Your task to perform on an android device: stop showing notifications on the lock screen Image 0: 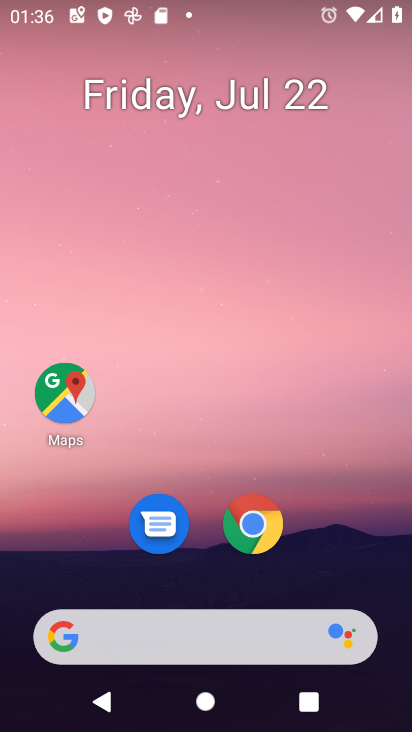
Step 0: drag from (220, 617) to (308, 0)
Your task to perform on an android device: stop showing notifications on the lock screen Image 1: 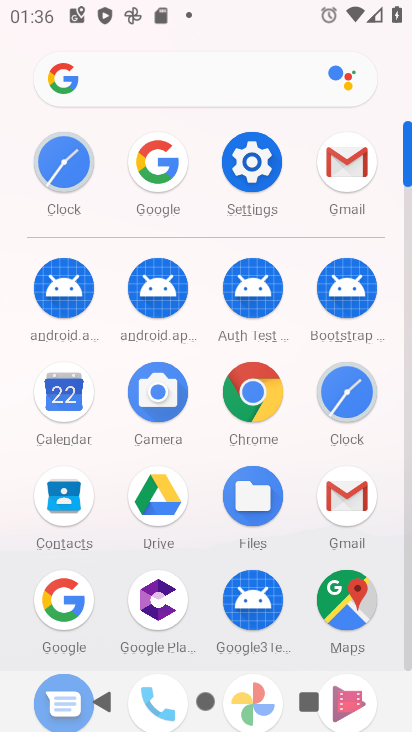
Step 1: click (245, 165)
Your task to perform on an android device: stop showing notifications on the lock screen Image 2: 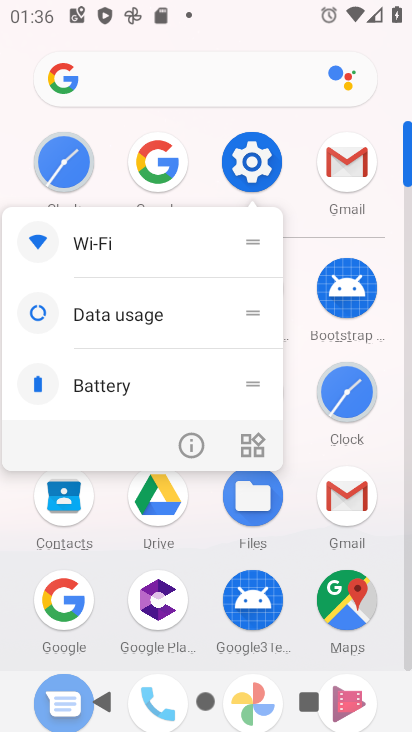
Step 2: click (249, 164)
Your task to perform on an android device: stop showing notifications on the lock screen Image 3: 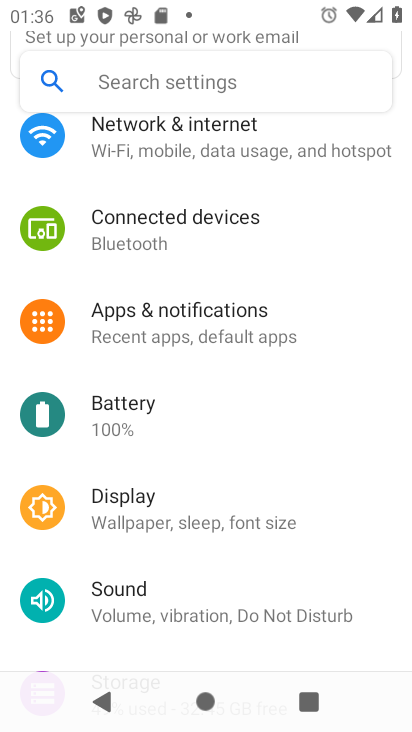
Step 3: click (237, 321)
Your task to perform on an android device: stop showing notifications on the lock screen Image 4: 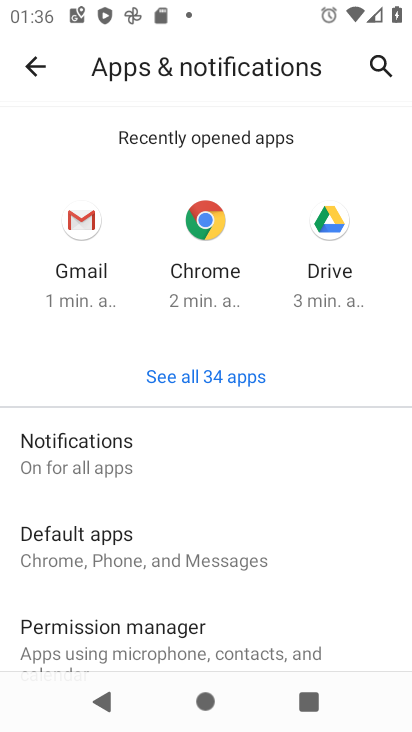
Step 4: click (108, 458)
Your task to perform on an android device: stop showing notifications on the lock screen Image 5: 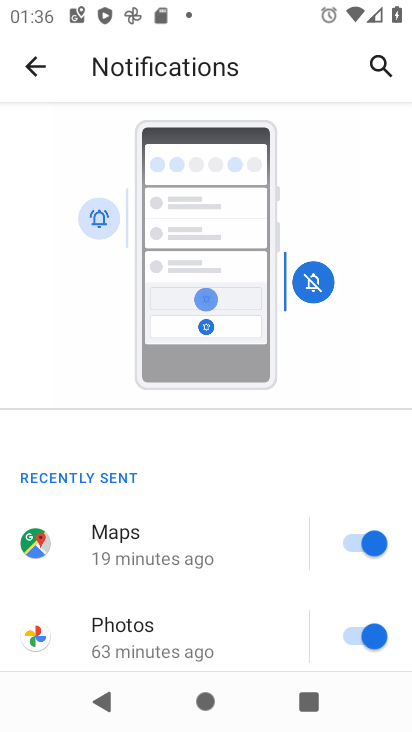
Step 5: drag from (200, 636) to (341, 224)
Your task to perform on an android device: stop showing notifications on the lock screen Image 6: 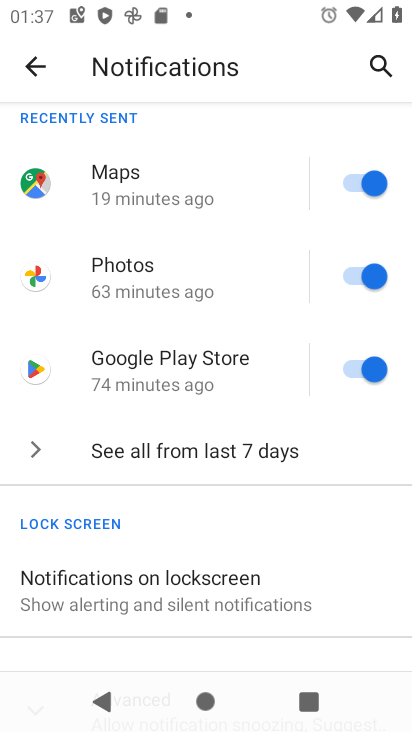
Step 6: click (165, 590)
Your task to perform on an android device: stop showing notifications on the lock screen Image 7: 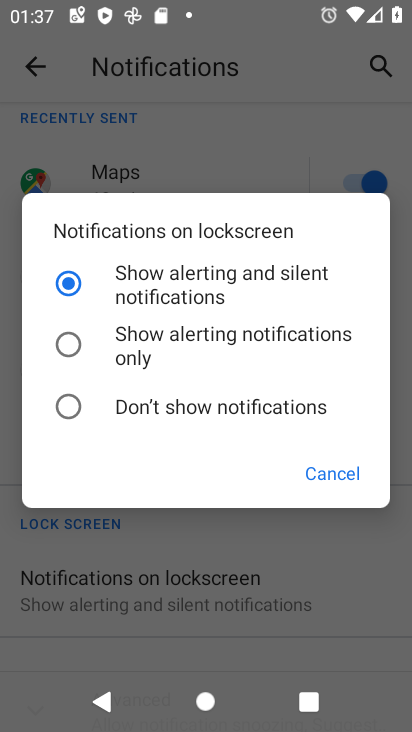
Step 7: click (64, 406)
Your task to perform on an android device: stop showing notifications on the lock screen Image 8: 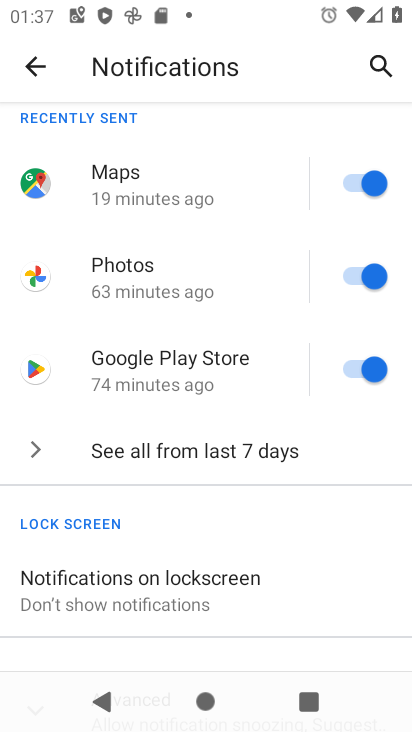
Step 8: task complete